Your task to perform on an android device: Open location settings Image 0: 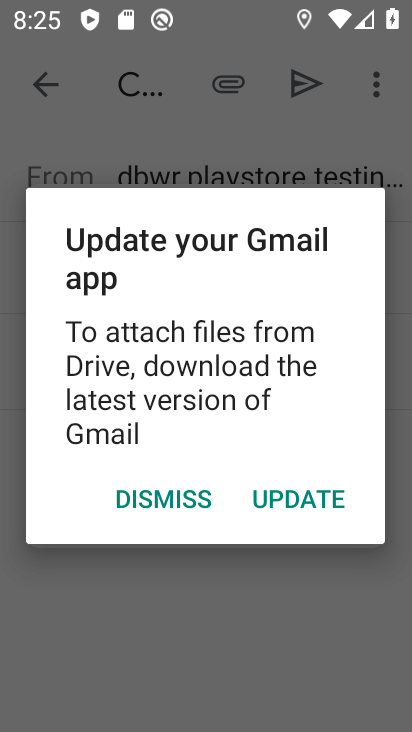
Step 0: press home button
Your task to perform on an android device: Open location settings Image 1: 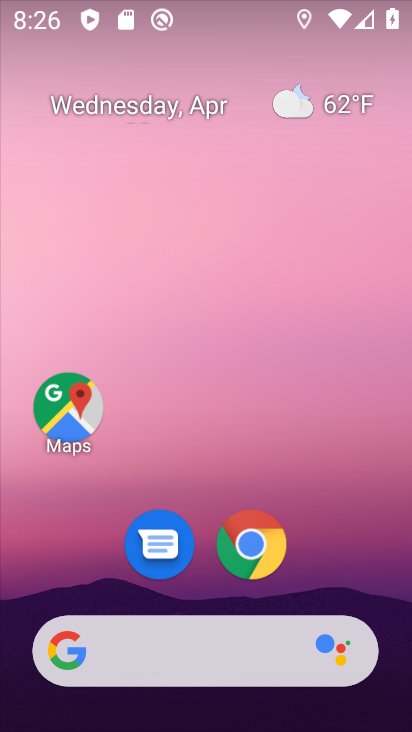
Step 1: drag from (355, 574) to (222, 84)
Your task to perform on an android device: Open location settings Image 2: 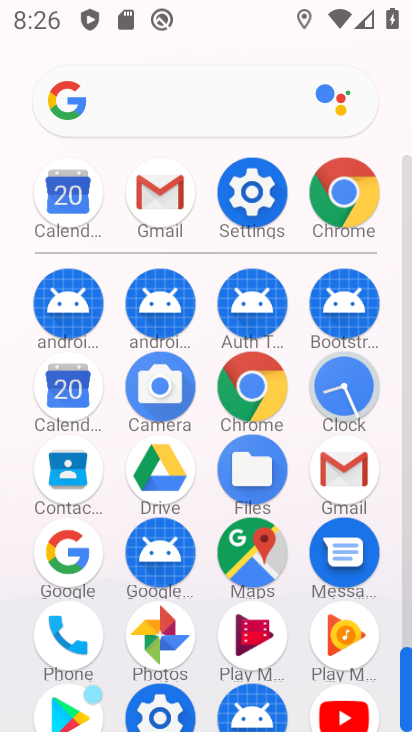
Step 2: click (247, 182)
Your task to perform on an android device: Open location settings Image 3: 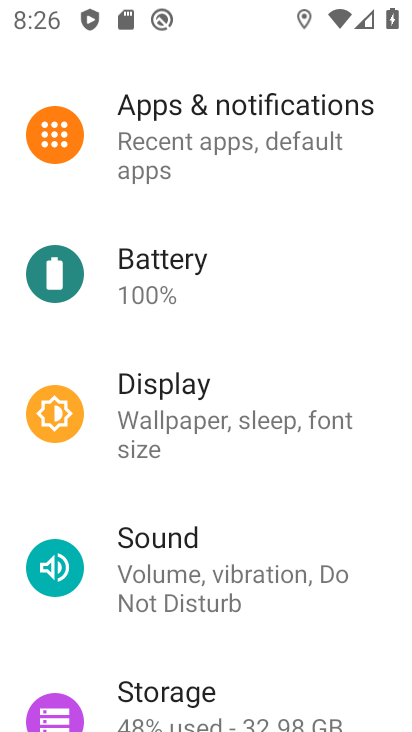
Step 3: drag from (220, 589) to (162, 96)
Your task to perform on an android device: Open location settings Image 4: 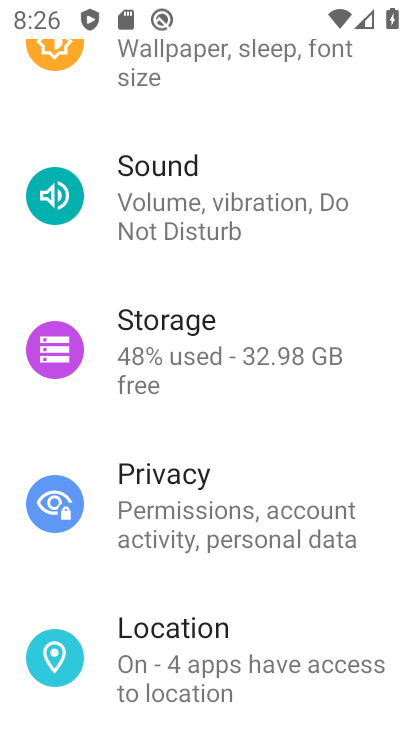
Step 4: click (188, 653)
Your task to perform on an android device: Open location settings Image 5: 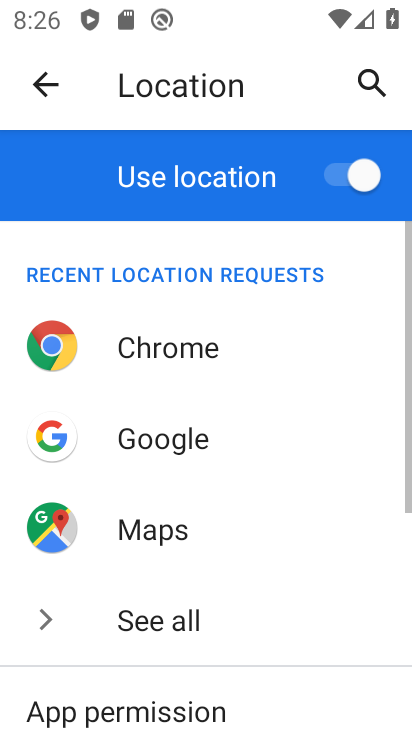
Step 5: drag from (224, 661) to (211, 208)
Your task to perform on an android device: Open location settings Image 6: 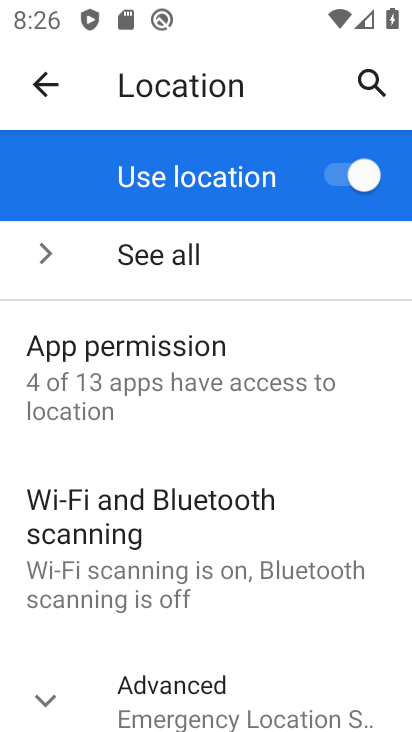
Step 6: drag from (202, 616) to (201, 201)
Your task to perform on an android device: Open location settings Image 7: 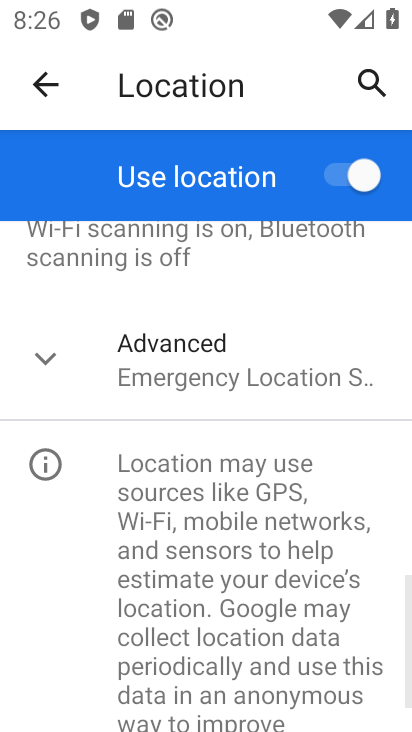
Step 7: click (177, 364)
Your task to perform on an android device: Open location settings Image 8: 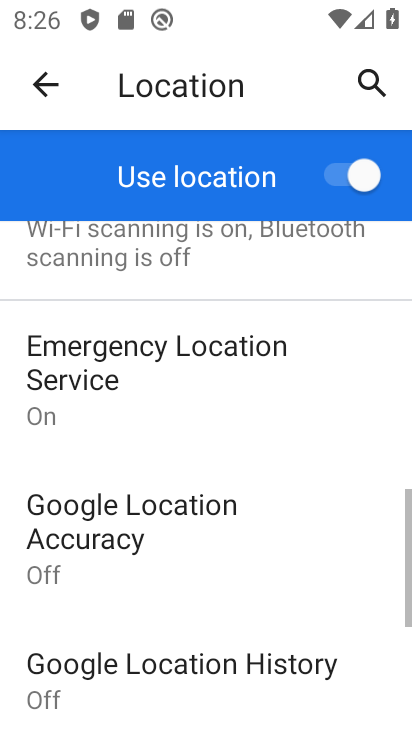
Step 8: task complete